Your task to perform on an android device: What is the recent news? Image 0: 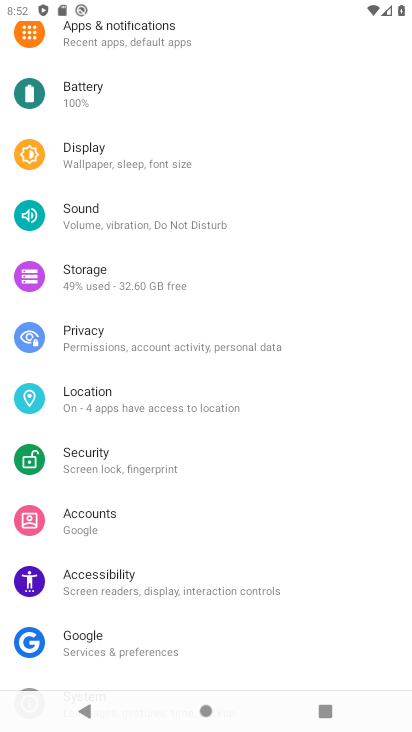
Step 0: press home button
Your task to perform on an android device: What is the recent news? Image 1: 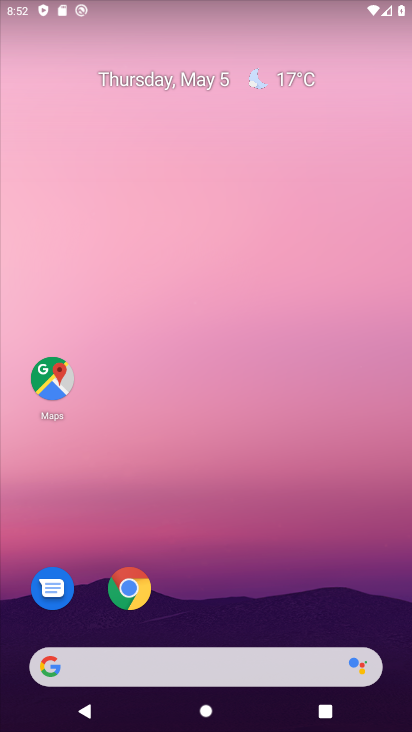
Step 1: drag from (258, 544) to (275, 168)
Your task to perform on an android device: What is the recent news? Image 2: 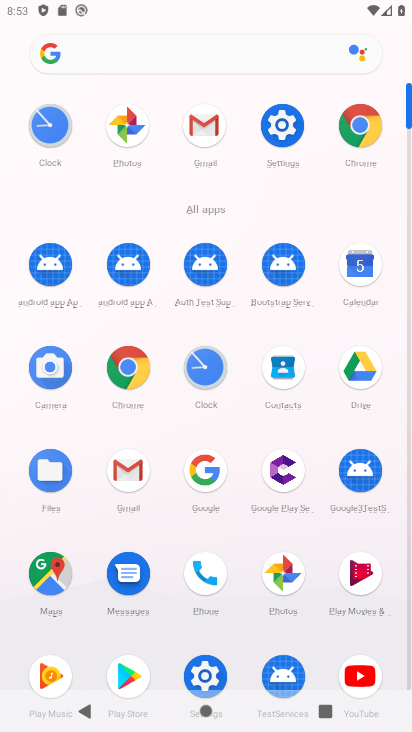
Step 2: click (200, 467)
Your task to perform on an android device: What is the recent news? Image 3: 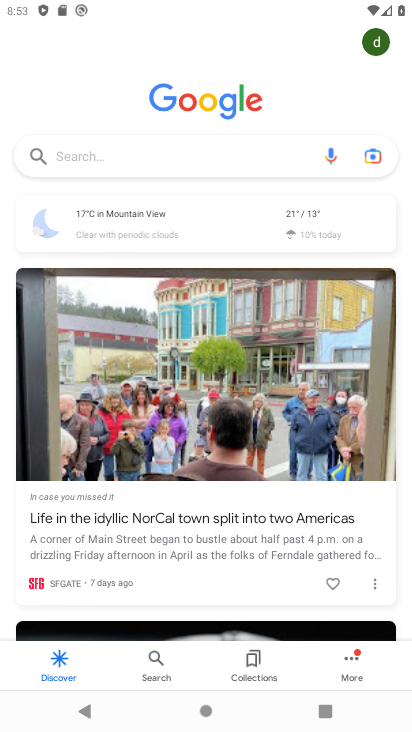
Step 3: click (211, 148)
Your task to perform on an android device: What is the recent news? Image 4: 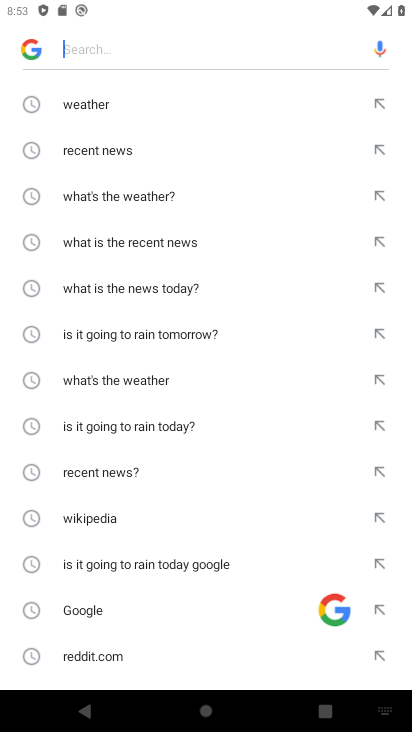
Step 4: type " recent news?"
Your task to perform on an android device: What is the recent news? Image 5: 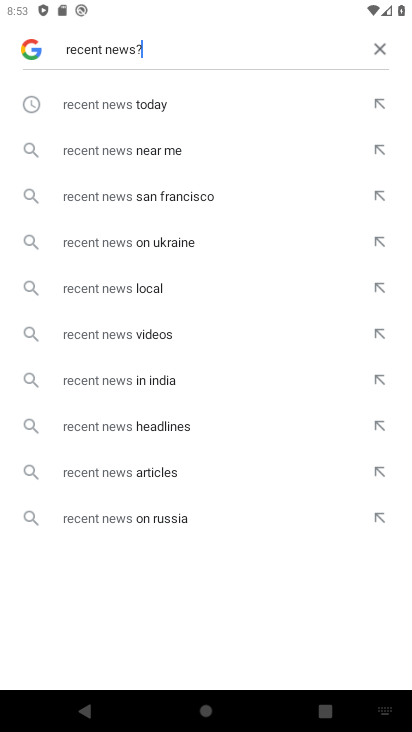
Step 5: click (120, 103)
Your task to perform on an android device: What is the recent news? Image 6: 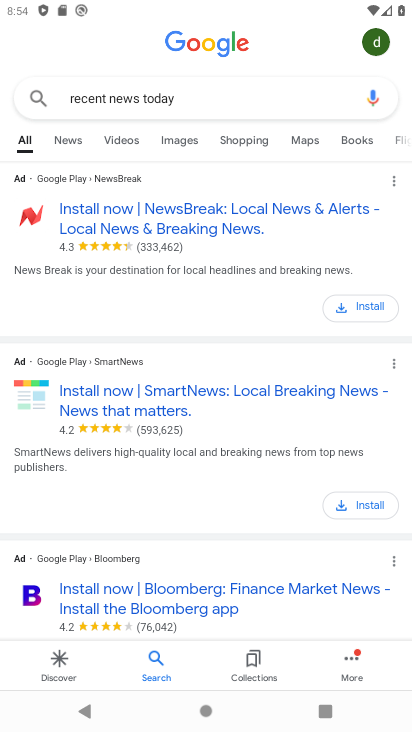
Step 6: click (186, 98)
Your task to perform on an android device: What is the recent news? Image 7: 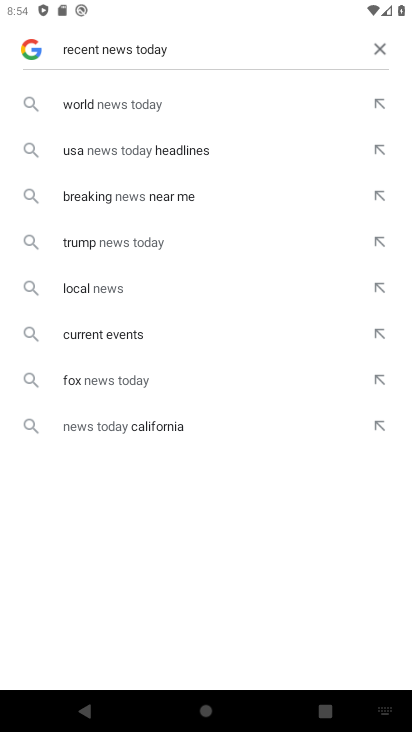
Step 7: click (382, 55)
Your task to perform on an android device: What is the recent news? Image 8: 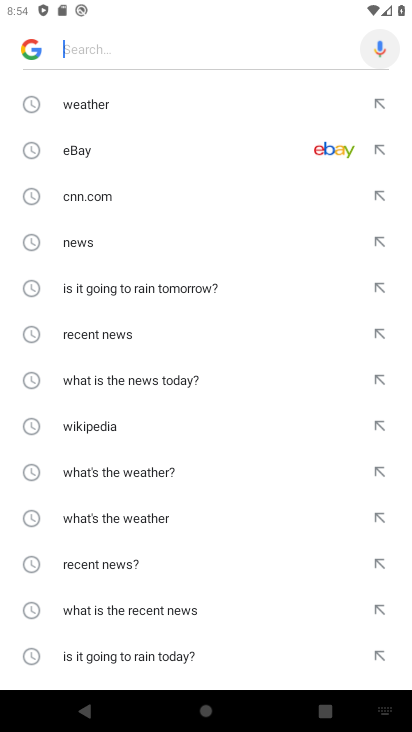
Step 8: click (374, 48)
Your task to perform on an android device: What is the recent news? Image 9: 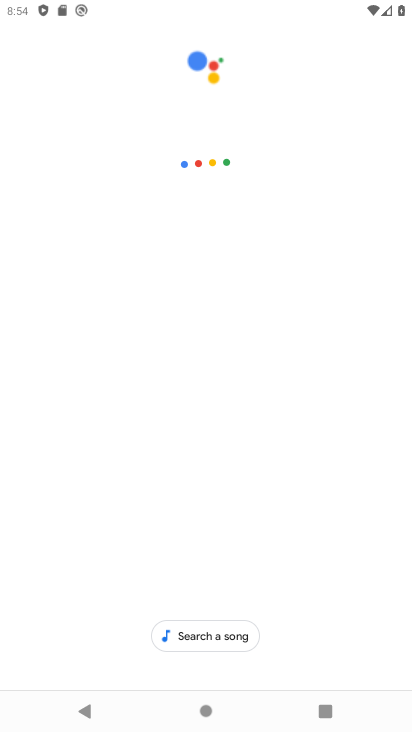
Step 9: click (282, 54)
Your task to perform on an android device: What is the recent news? Image 10: 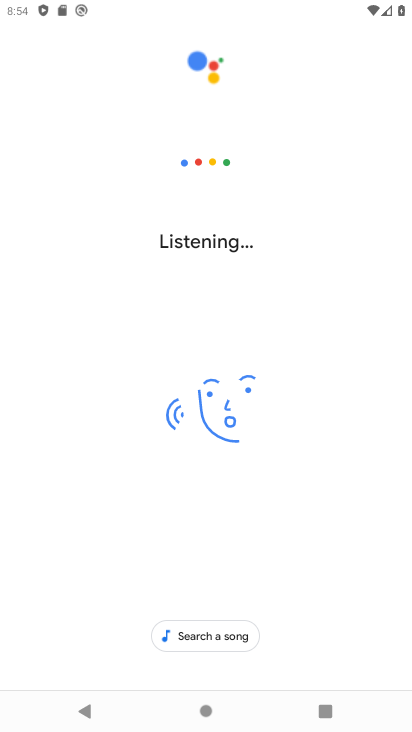
Step 10: press back button
Your task to perform on an android device: What is the recent news? Image 11: 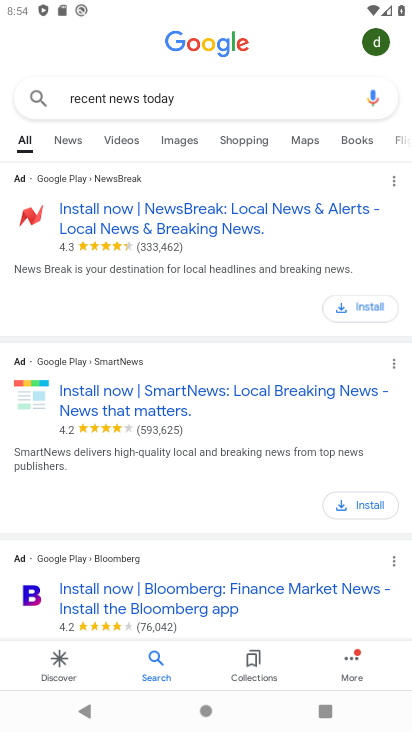
Step 11: click (184, 91)
Your task to perform on an android device: What is the recent news? Image 12: 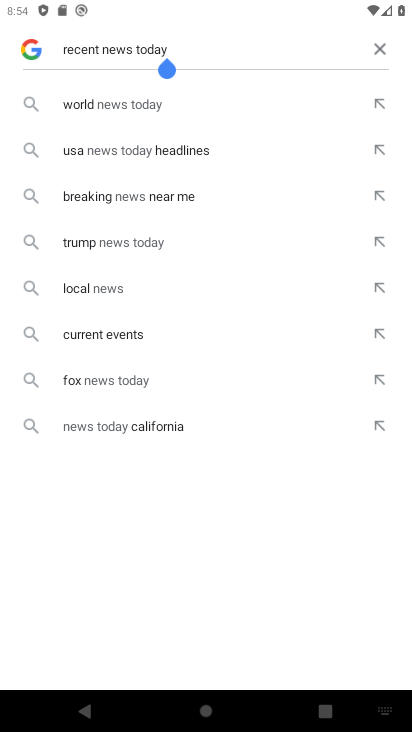
Step 12: click (383, 50)
Your task to perform on an android device: What is the recent news? Image 13: 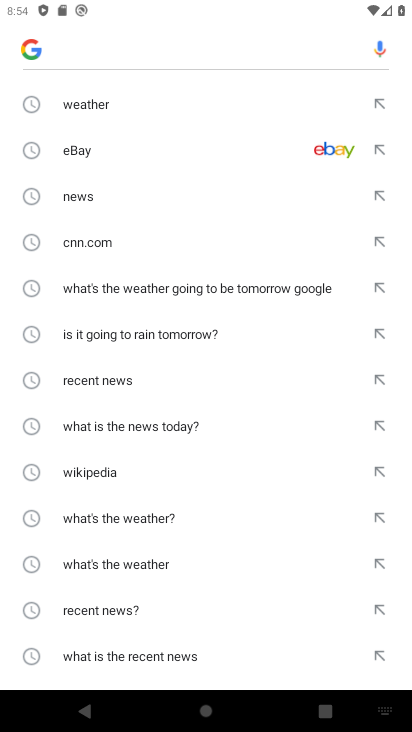
Step 13: click (233, 56)
Your task to perform on an android device: What is the recent news? Image 14: 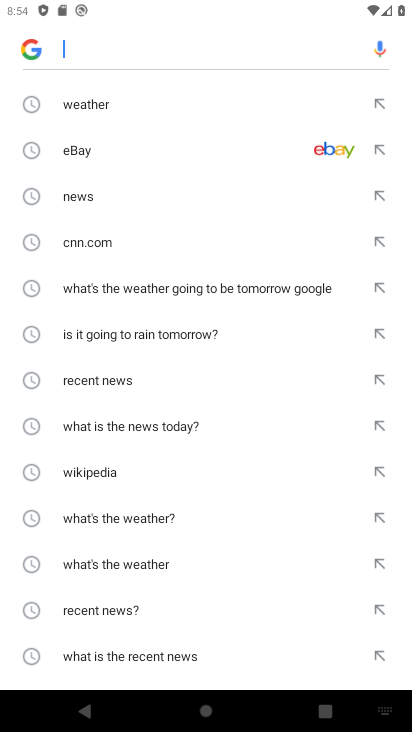
Step 14: type "recent news"
Your task to perform on an android device: What is the recent news? Image 15: 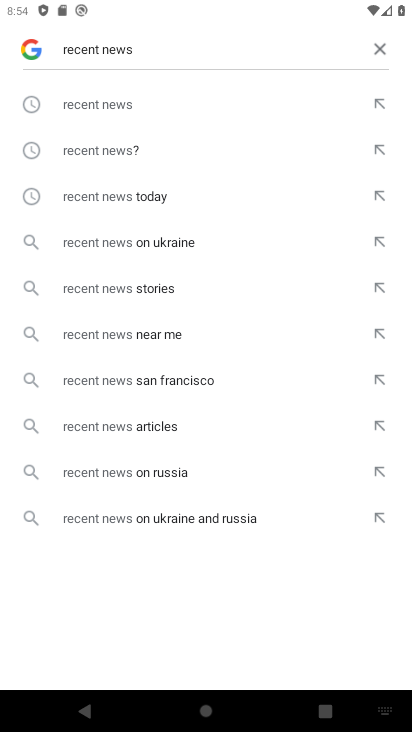
Step 15: click (150, 103)
Your task to perform on an android device: What is the recent news? Image 16: 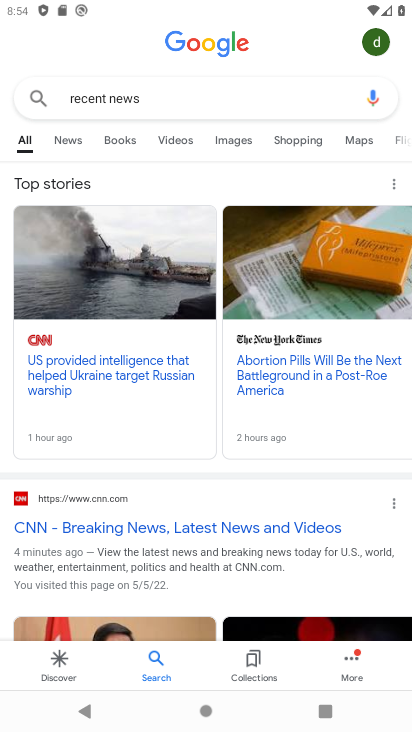
Step 16: task complete